Your task to perform on an android device: toggle notifications settings in the gmail app Image 0: 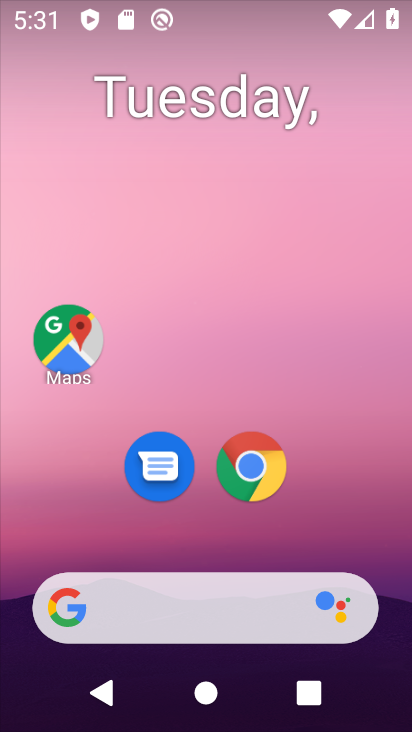
Step 0: press home button
Your task to perform on an android device: toggle notifications settings in the gmail app Image 1: 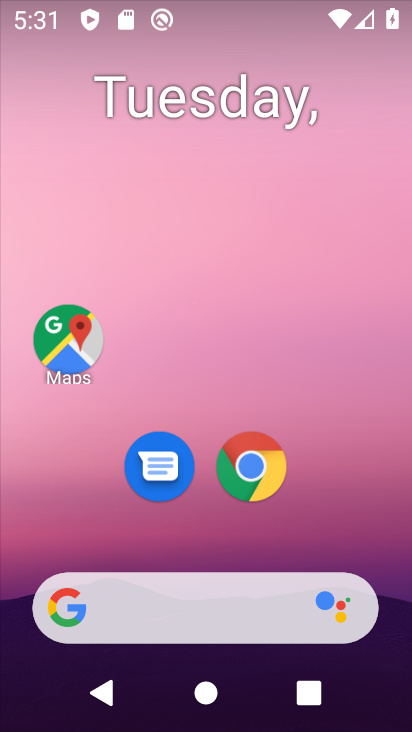
Step 1: drag from (387, 545) to (337, 186)
Your task to perform on an android device: toggle notifications settings in the gmail app Image 2: 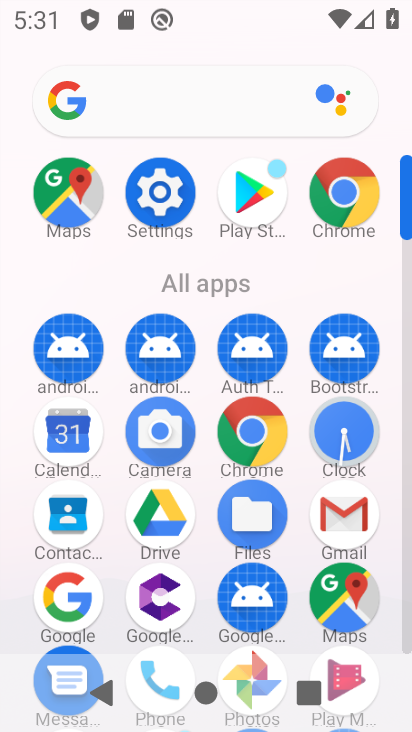
Step 2: click (338, 516)
Your task to perform on an android device: toggle notifications settings in the gmail app Image 3: 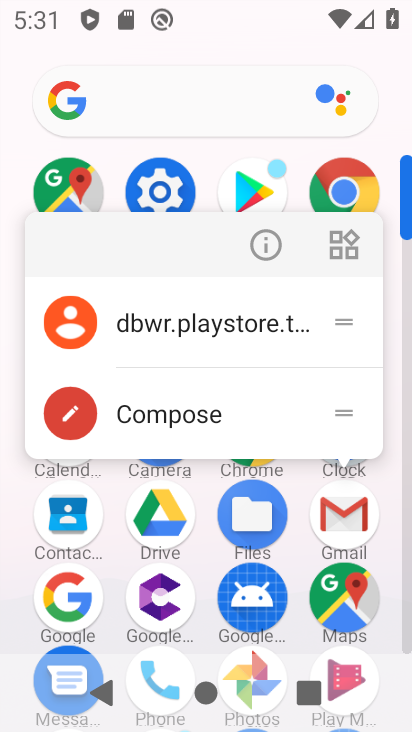
Step 3: click (263, 258)
Your task to perform on an android device: toggle notifications settings in the gmail app Image 4: 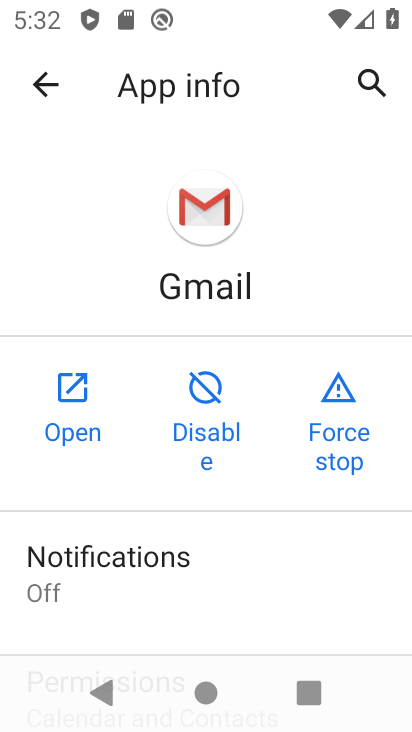
Step 4: click (118, 553)
Your task to perform on an android device: toggle notifications settings in the gmail app Image 5: 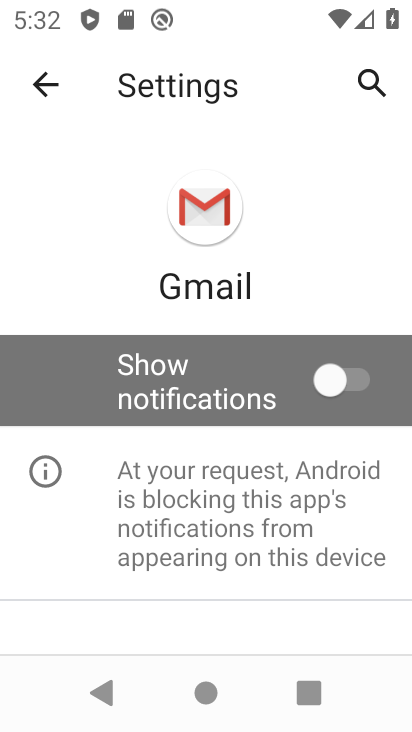
Step 5: click (251, 382)
Your task to perform on an android device: toggle notifications settings in the gmail app Image 6: 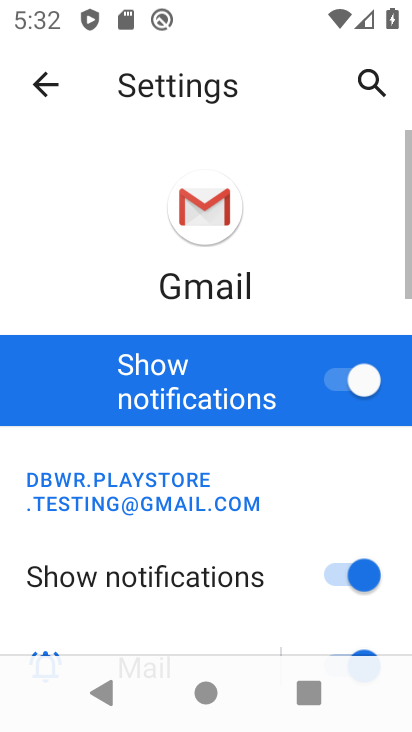
Step 6: task complete